Your task to perform on an android device: turn off location Image 0: 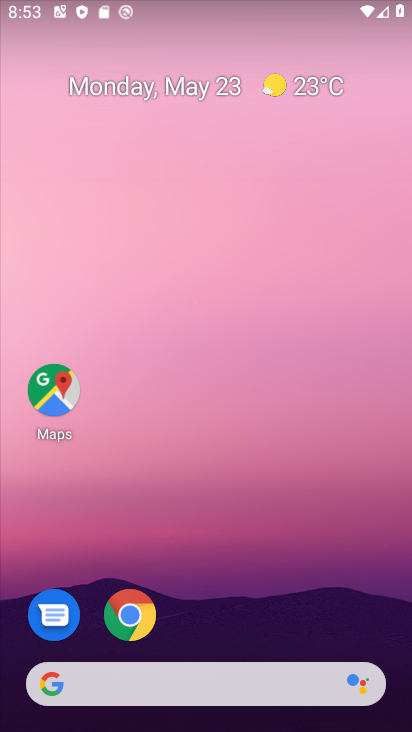
Step 0: drag from (257, 600) to (212, 75)
Your task to perform on an android device: turn off location Image 1: 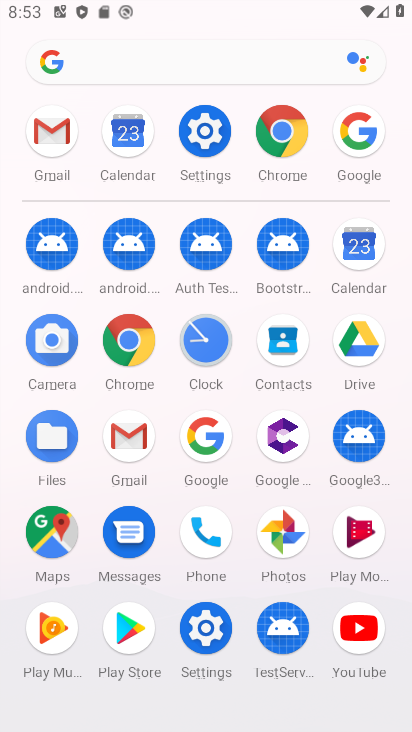
Step 1: click (204, 132)
Your task to perform on an android device: turn off location Image 2: 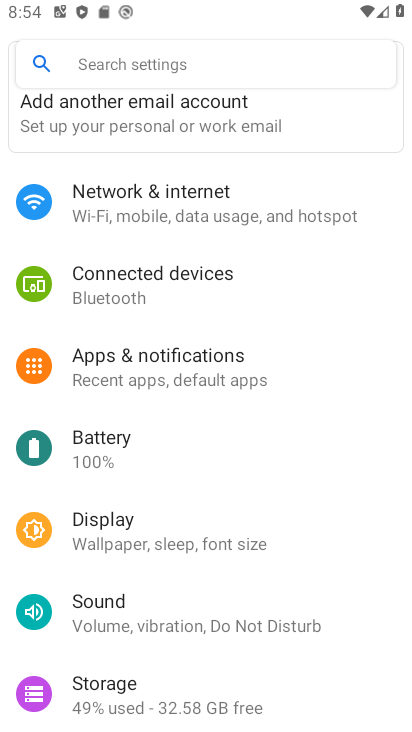
Step 2: drag from (158, 498) to (218, 419)
Your task to perform on an android device: turn off location Image 3: 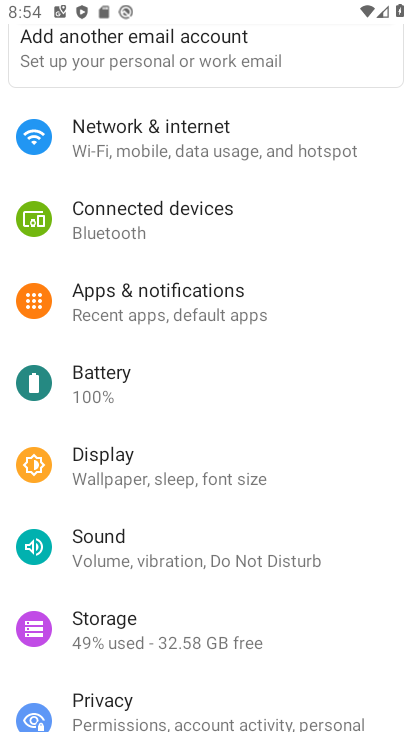
Step 3: drag from (165, 503) to (199, 404)
Your task to perform on an android device: turn off location Image 4: 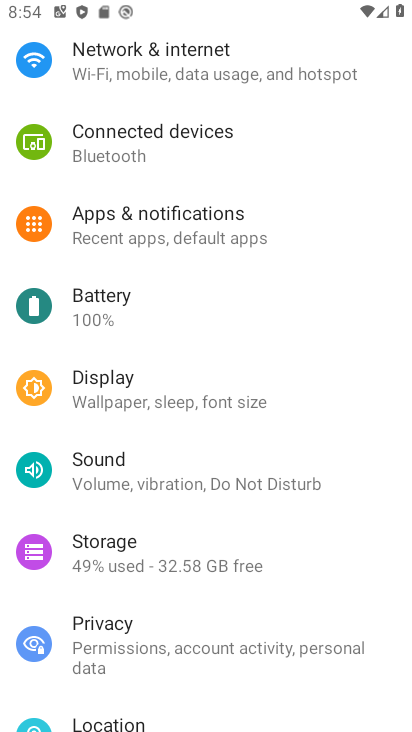
Step 4: drag from (182, 582) to (192, 504)
Your task to perform on an android device: turn off location Image 5: 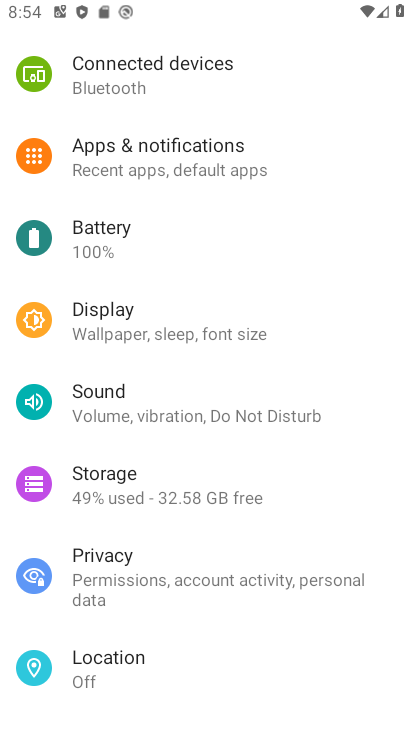
Step 5: click (136, 657)
Your task to perform on an android device: turn off location Image 6: 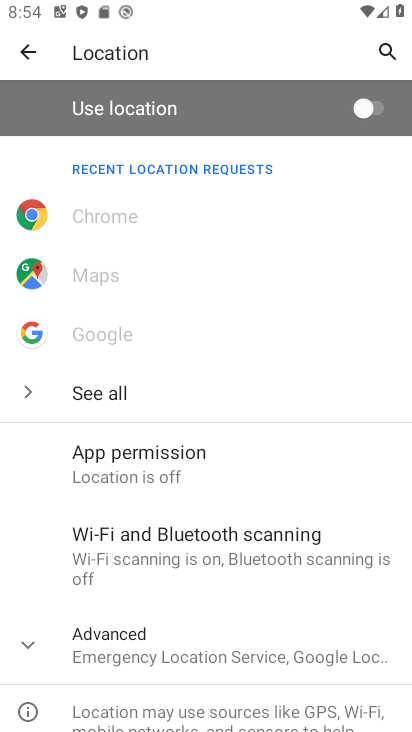
Step 6: task complete